Your task to perform on an android device: check android version Image 0: 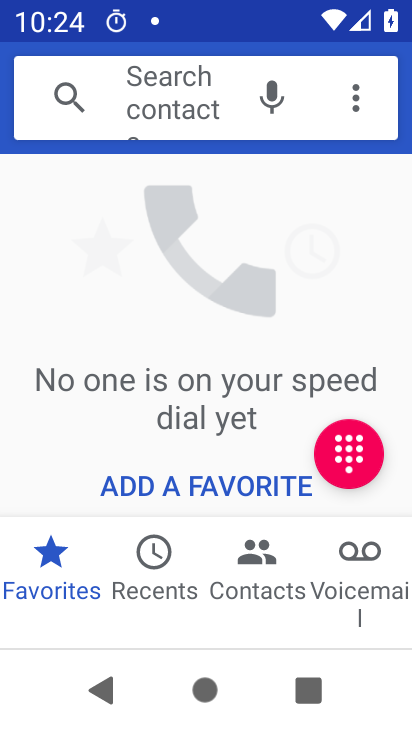
Step 0: press back button
Your task to perform on an android device: check android version Image 1: 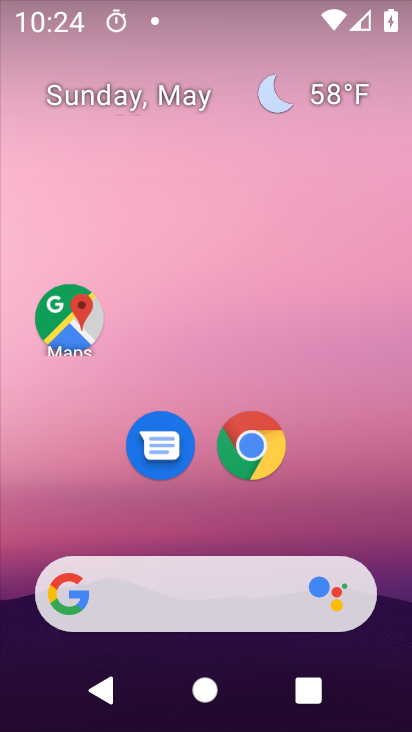
Step 1: drag from (357, 510) to (225, 40)
Your task to perform on an android device: check android version Image 2: 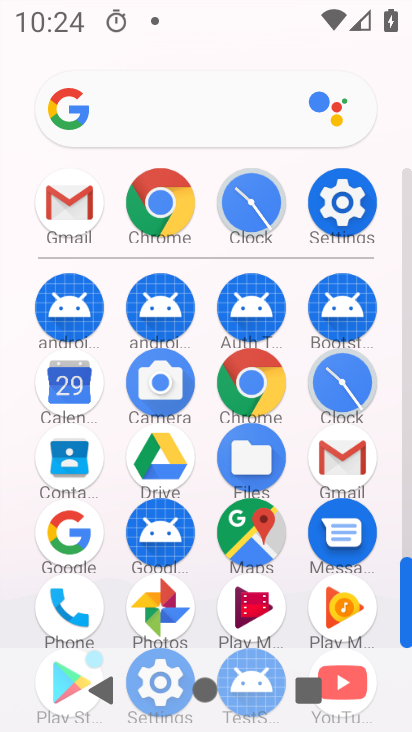
Step 2: click (344, 198)
Your task to perform on an android device: check android version Image 3: 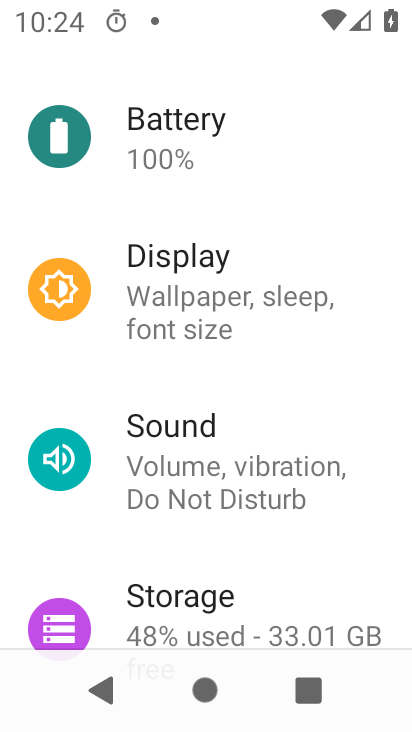
Step 3: drag from (336, 594) to (289, 135)
Your task to perform on an android device: check android version Image 4: 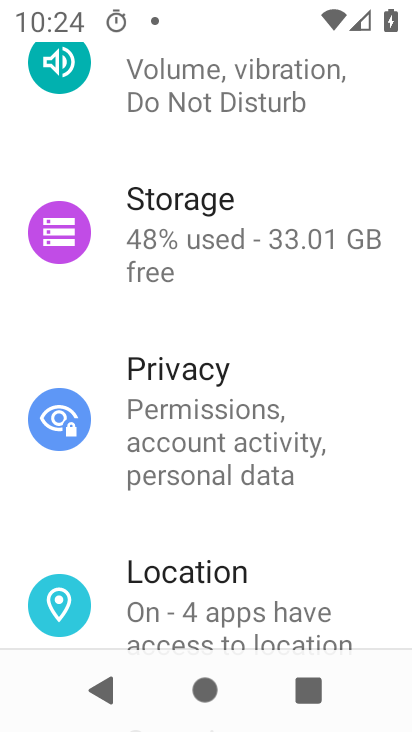
Step 4: drag from (309, 560) to (305, 419)
Your task to perform on an android device: check android version Image 5: 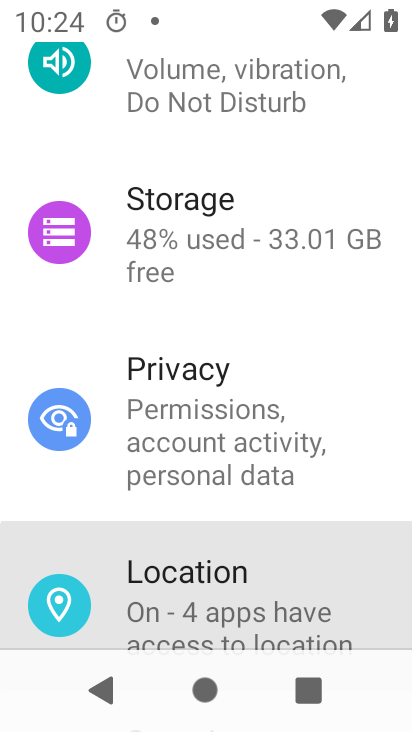
Step 5: drag from (289, 224) to (287, 145)
Your task to perform on an android device: check android version Image 6: 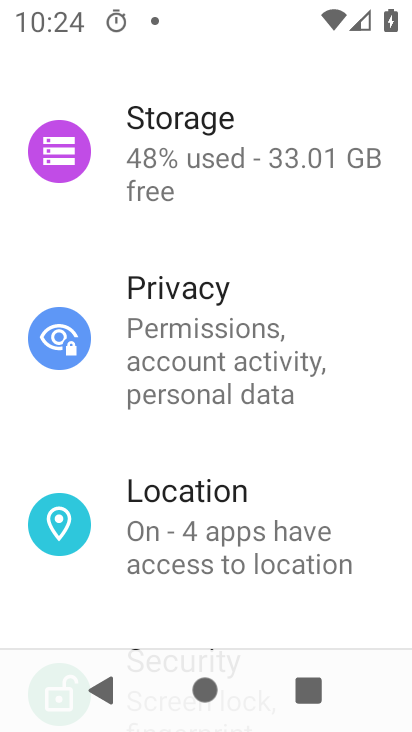
Step 6: drag from (283, 152) to (283, 491)
Your task to perform on an android device: check android version Image 7: 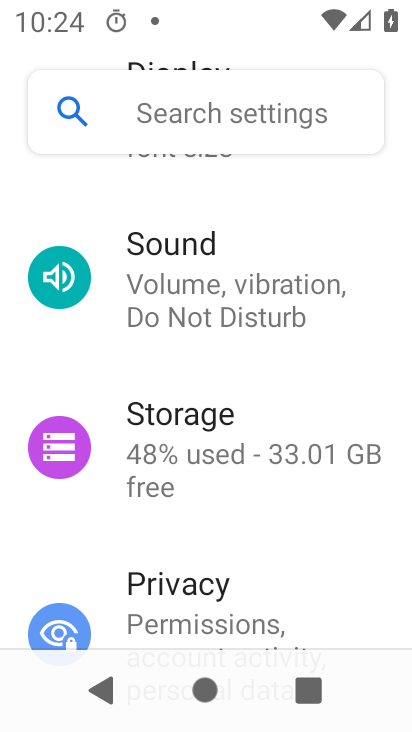
Step 7: drag from (269, 216) to (261, 560)
Your task to perform on an android device: check android version Image 8: 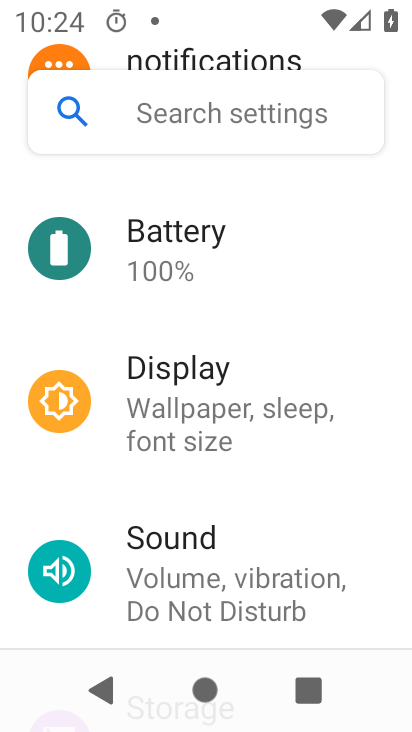
Step 8: drag from (333, 162) to (321, 579)
Your task to perform on an android device: check android version Image 9: 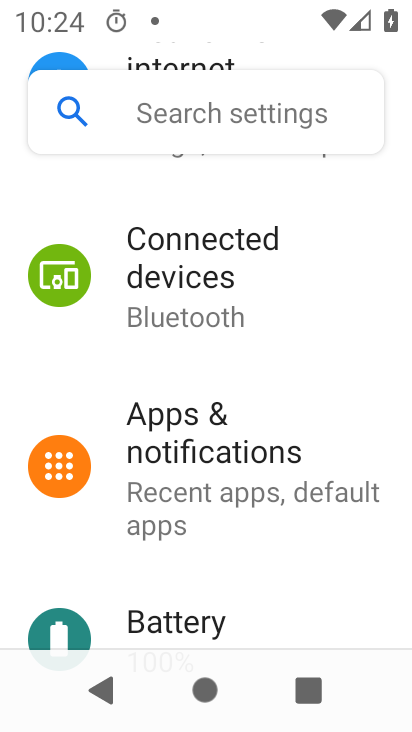
Step 9: drag from (310, 593) to (287, 137)
Your task to perform on an android device: check android version Image 10: 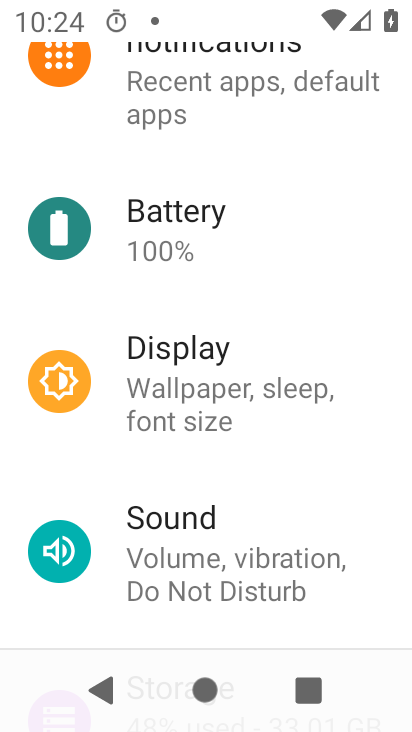
Step 10: drag from (251, 541) to (295, 148)
Your task to perform on an android device: check android version Image 11: 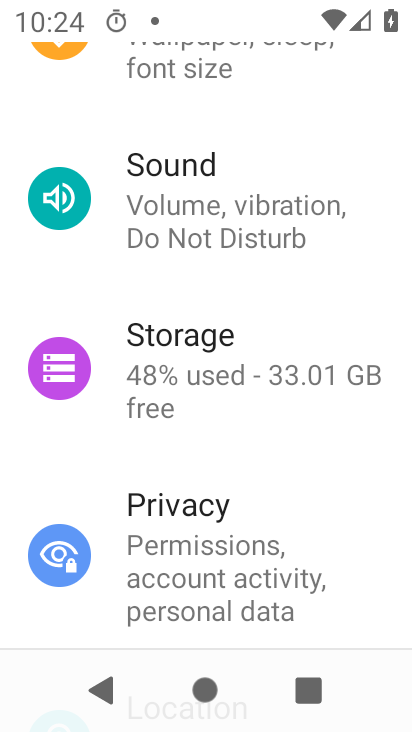
Step 11: drag from (267, 586) to (300, 133)
Your task to perform on an android device: check android version Image 12: 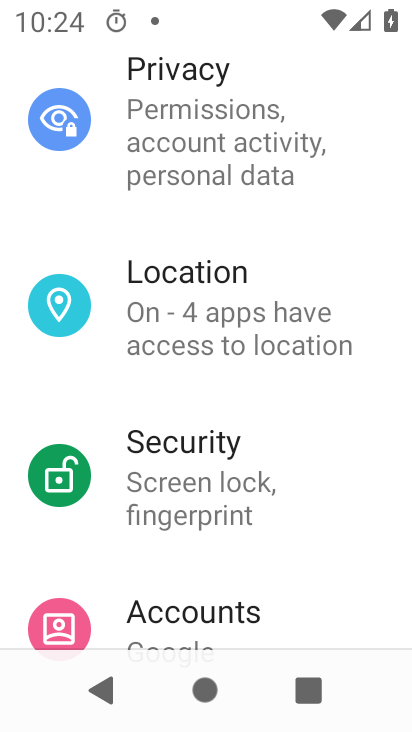
Step 12: drag from (298, 544) to (304, 169)
Your task to perform on an android device: check android version Image 13: 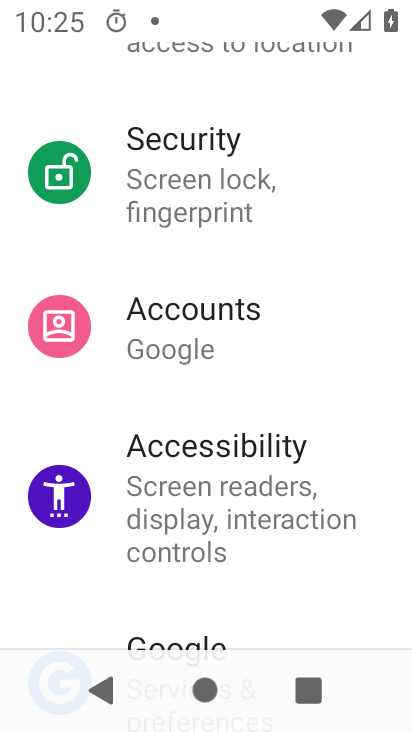
Step 13: drag from (275, 666) to (277, 336)
Your task to perform on an android device: check android version Image 14: 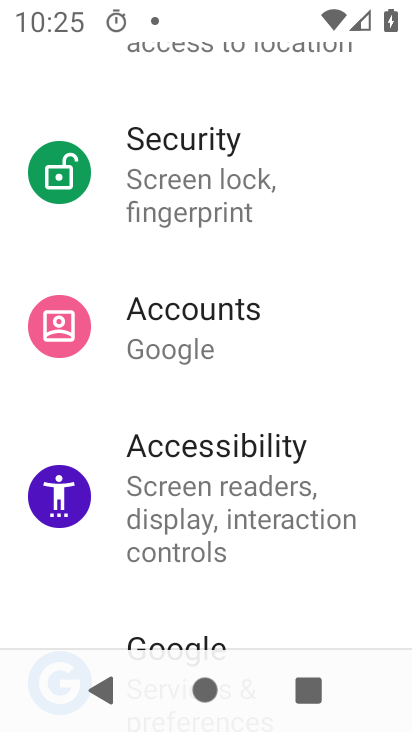
Step 14: drag from (277, 166) to (276, 78)
Your task to perform on an android device: check android version Image 15: 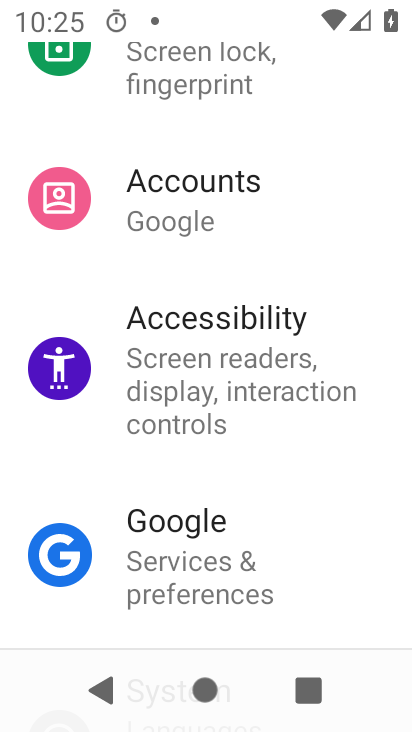
Step 15: drag from (272, 542) to (298, 105)
Your task to perform on an android device: check android version Image 16: 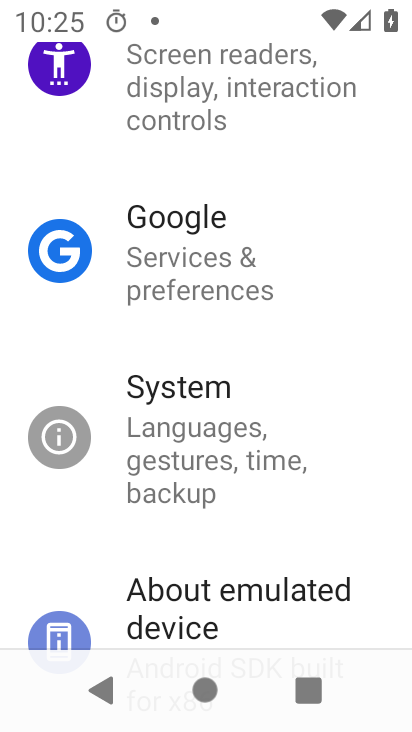
Step 16: drag from (271, 588) to (265, 127)
Your task to perform on an android device: check android version Image 17: 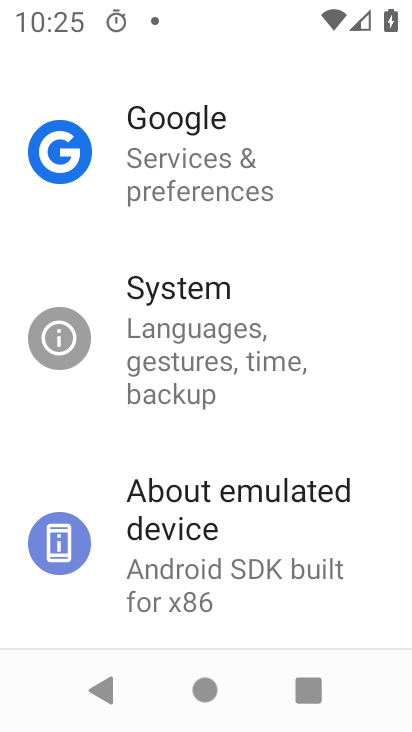
Step 17: drag from (320, 528) to (324, 121)
Your task to perform on an android device: check android version Image 18: 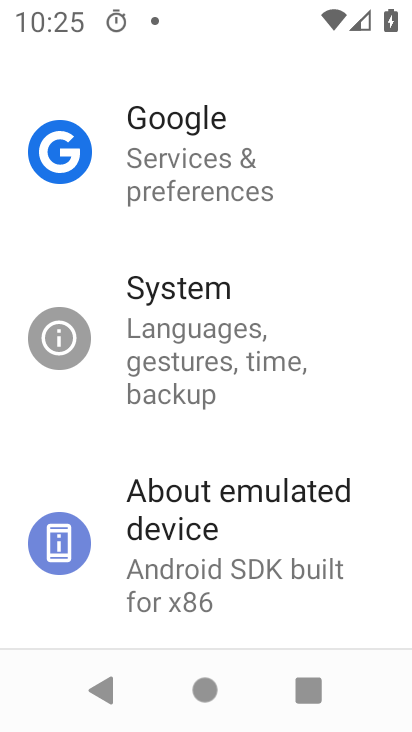
Step 18: click (237, 551)
Your task to perform on an android device: check android version Image 19: 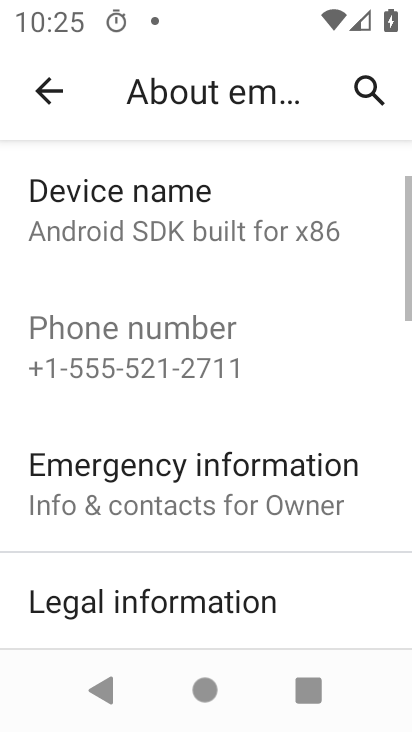
Step 19: task complete